Your task to perform on an android device: turn vacation reply on in the gmail app Image 0: 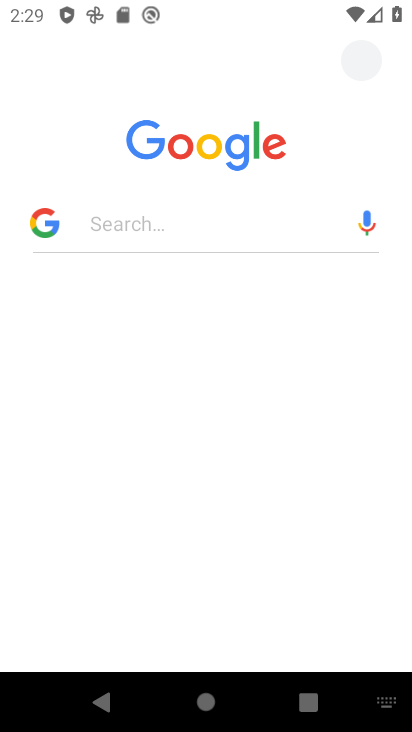
Step 0: press home button
Your task to perform on an android device: turn vacation reply on in the gmail app Image 1: 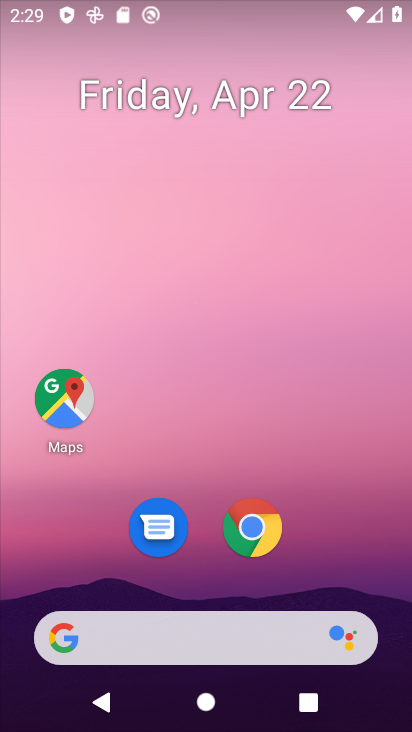
Step 1: drag from (398, 637) to (259, 27)
Your task to perform on an android device: turn vacation reply on in the gmail app Image 2: 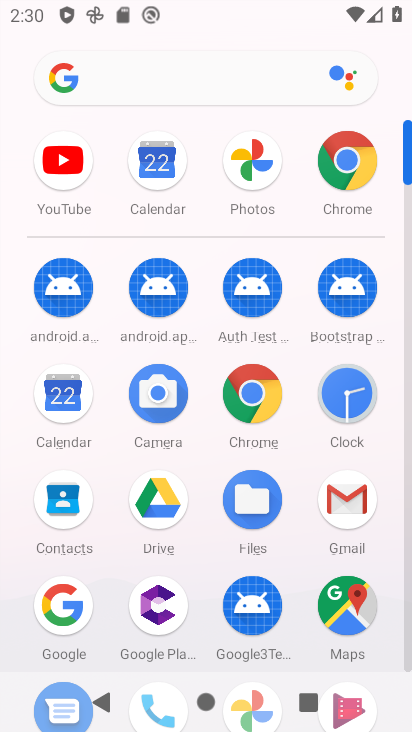
Step 2: click (348, 516)
Your task to perform on an android device: turn vacation reply on in the gmail app Image 3: 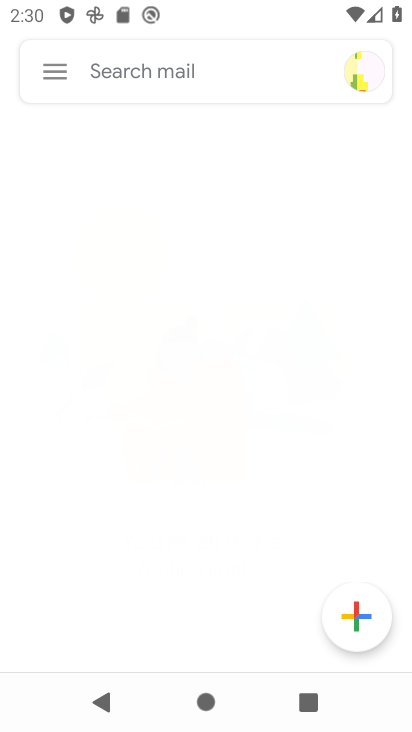
Step 3: click (48, 75)
Your task to perform on an android device: turn vacation reply on in the gmail app Image 4: 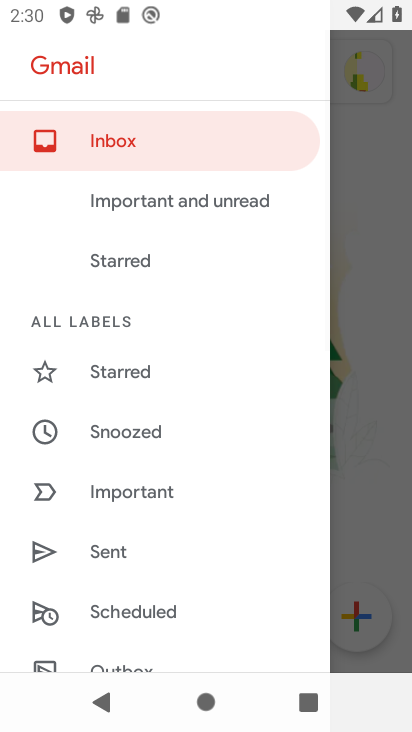
Step 4: drag from (180, 612) to (214, 49)
Your task to perform on an android device: turn vacation reply on in the gmail app Image 5: 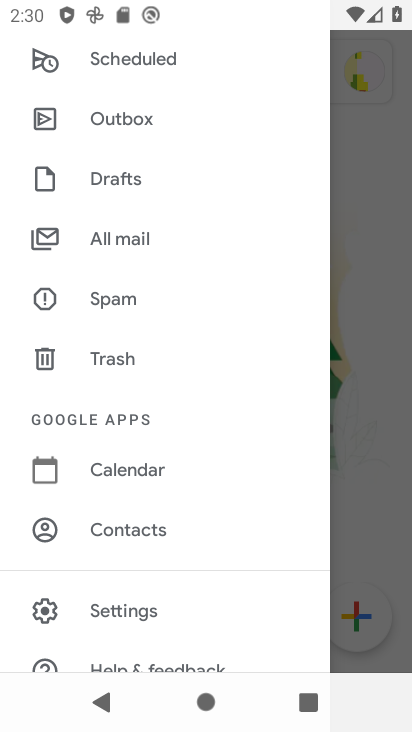
Step 5: click (170, 618)
Your task to perform on an android device: turn vacation reply on in the gmail app Image 6: 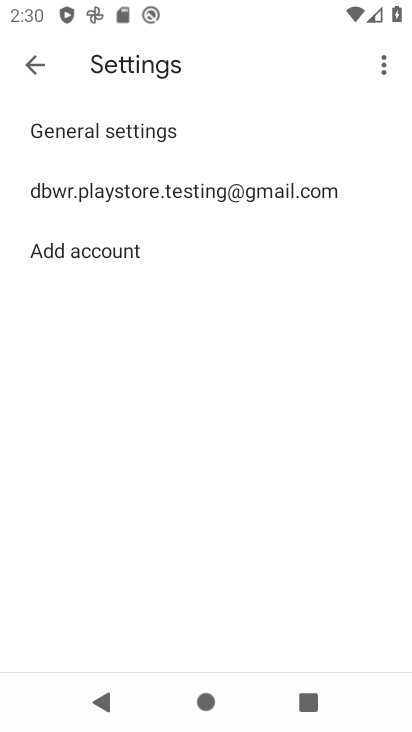
Step 6: click (242, 182)
Your task to perform on an android device: turn vacation reply on in the gmail app Image 7: 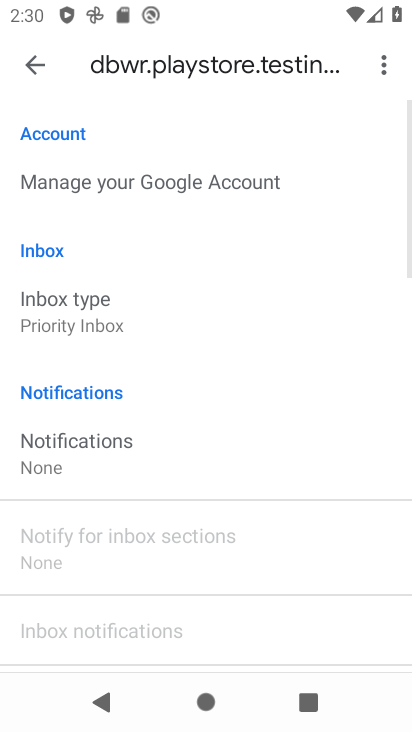
Step 7: task complete